Your task to perform on an android device: Show me recent news Image 0: 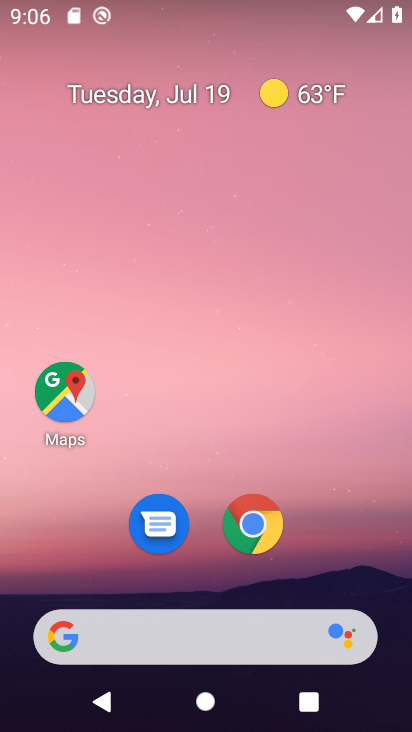
Step 0: click (174, 650)
Your task to perform on an android device: Show me recent news Image 1: 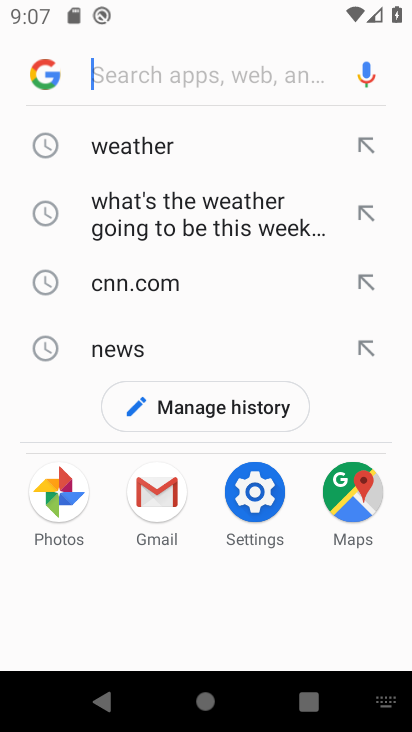
Step 1: click (122, 348)
Your task to perform on an android device: Show me recent news Image 2: 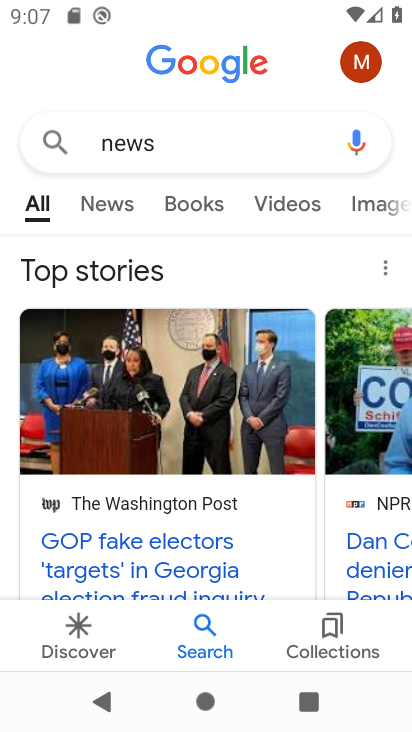
Step 2: click (117, 215)
Your task to perform on an android device: Show me recent news Image 3: 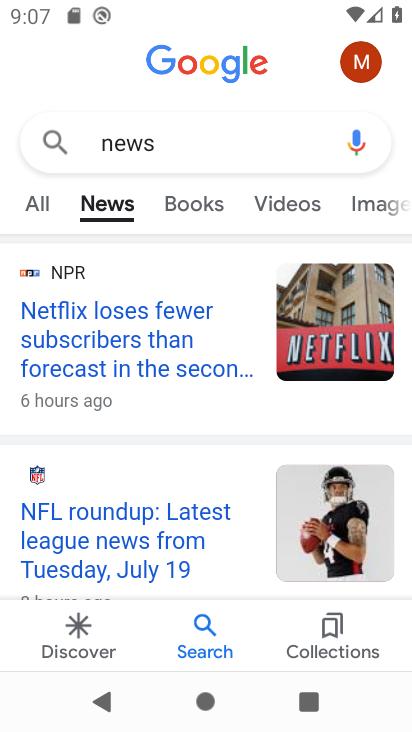
Step 3: task complete